Your task to perform on an android device: turn off location Image 0: 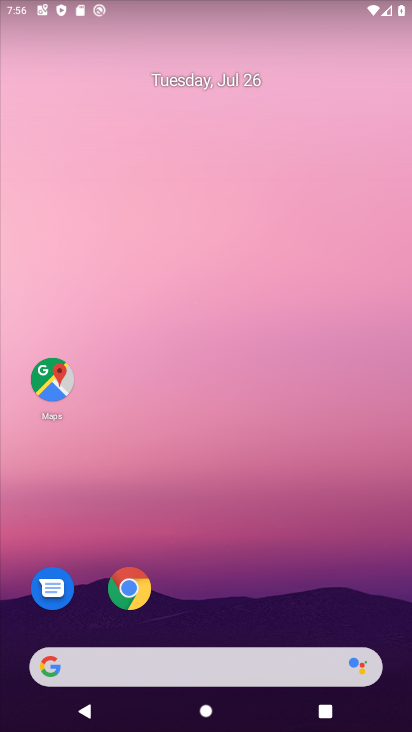
Step 0: drag from (239, 511) to (264, 32)
Your task to perform on an android device: turn off location Image 1: 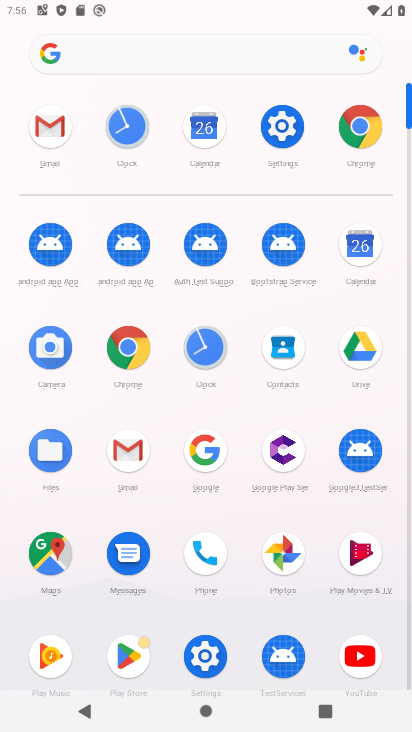
Step 1: click (281, 117)
Your task to perform on an android device: turn off location Image 2: 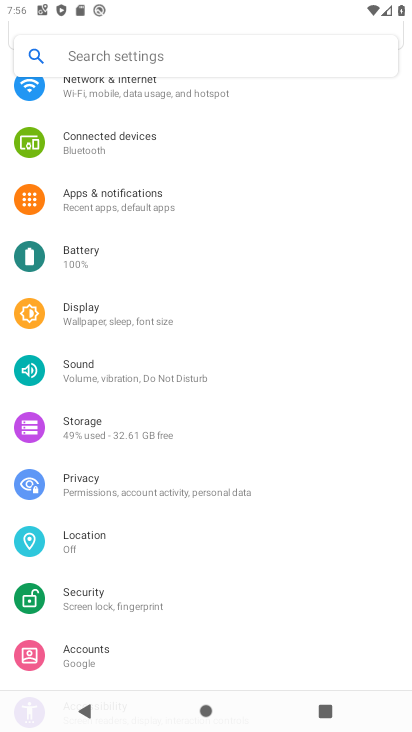
Step 2: click (89, 538)
Your task to perform on an android device: turn off location Image 3: 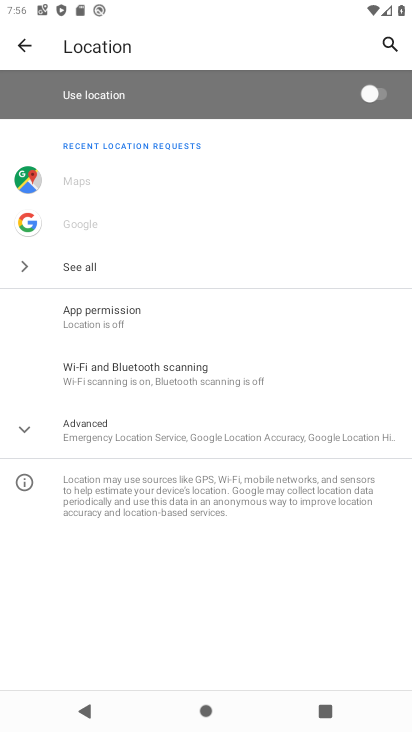
Step 3: task complete